Your task to perform on an android device: Go to accessibility settings Image 0: 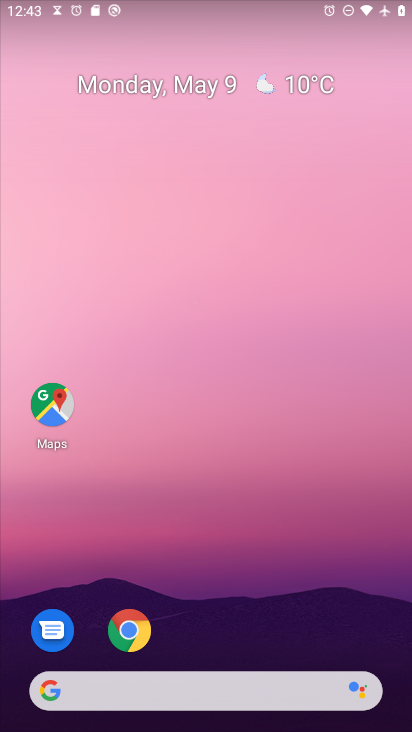
Step 0: drag from (169, 694) to (384, 87)
Your task to perform on an android device: Go to accessibility settings Image 1: 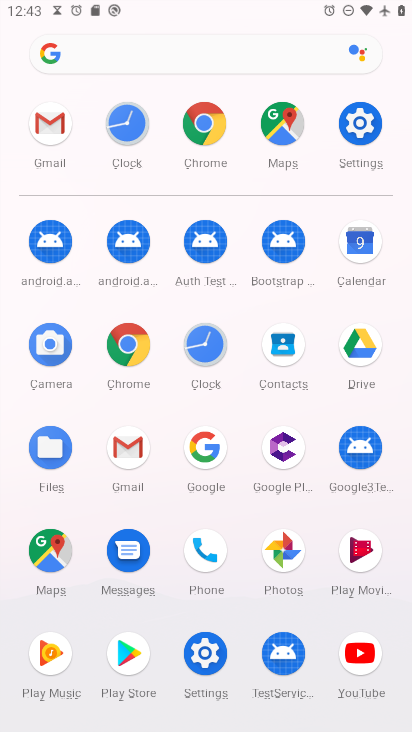
Step 1: click (362, 127)
Your task to perform on an android device: Go to accessibility settings Image 2: 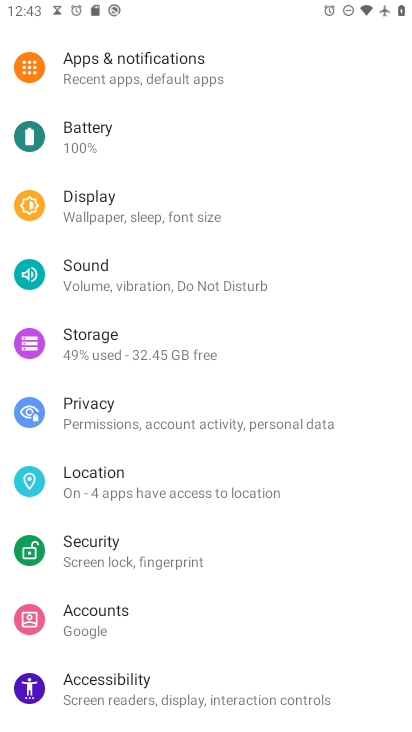
Step 2: click (109, 684)
Your task to perform on an android device: Go to accessibility settings Image 3: 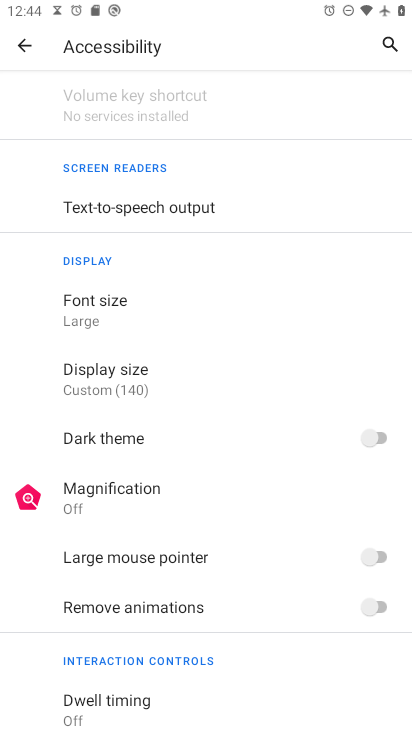
Step 3: task complete